Your task to perform on an android device: Open Reddit.com Image 0: 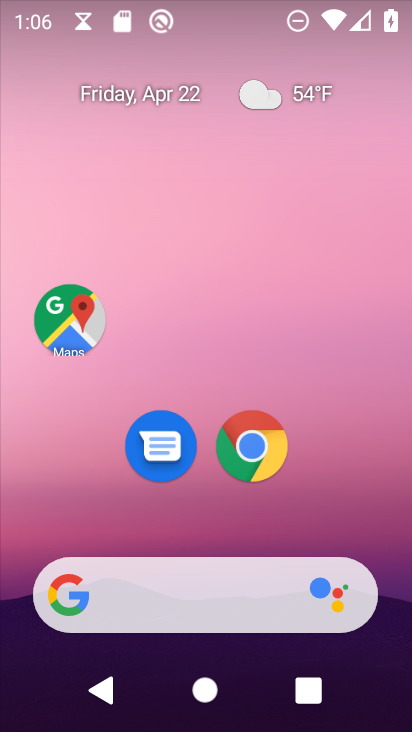
Step 0: click (279, 445)
Your task to perform on an android device: Open Reddit.com Image 1: 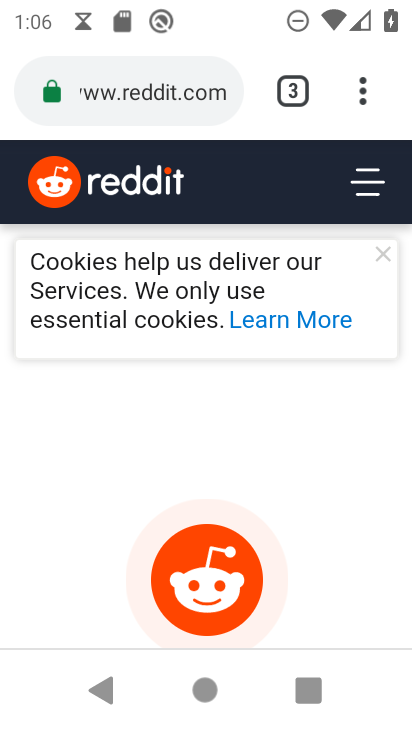
Step 1: task complete